Your task to perform on an android device: What is the news today? Image 0: 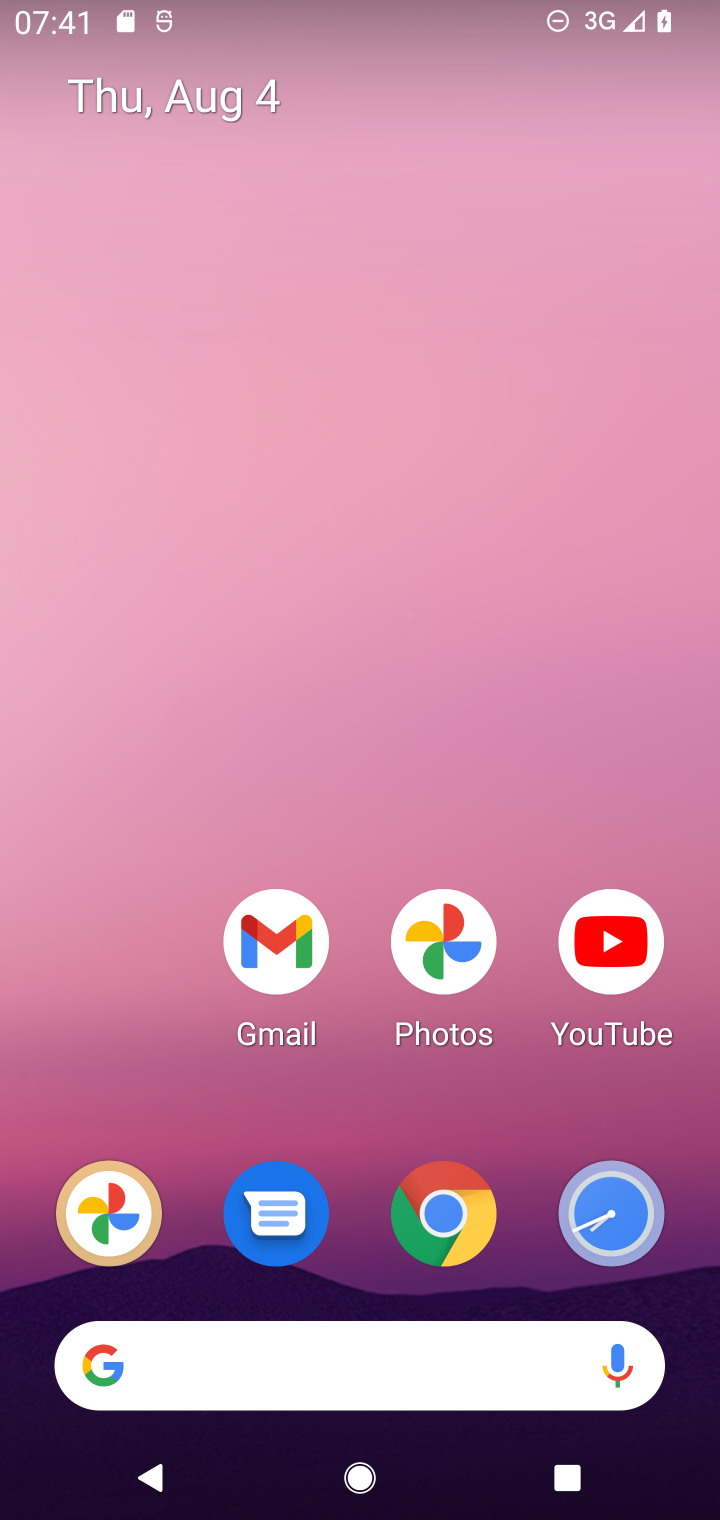
Step 0: press home button
Your task to perform on an android device: What is the news today? Image 1: 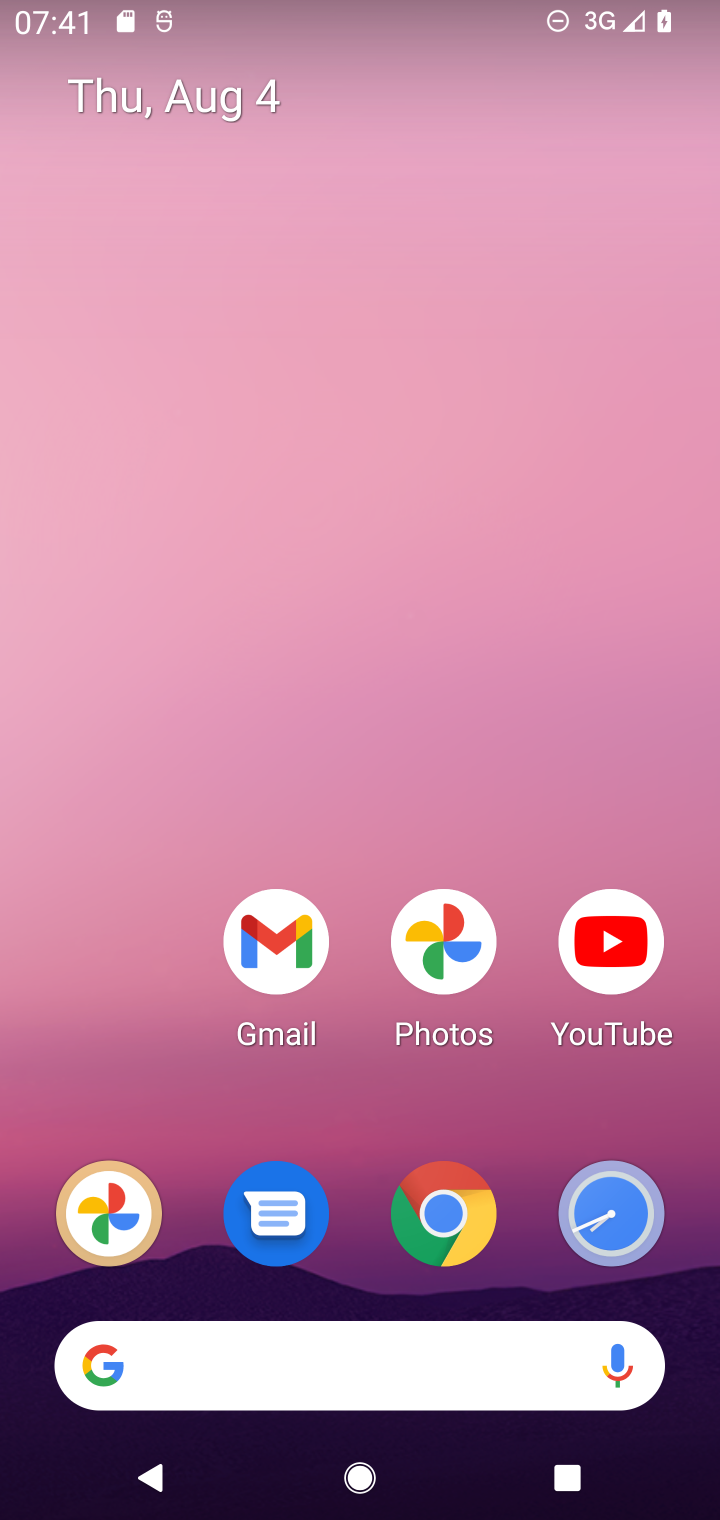
Step 1: task complete